Your task to perform on an android device: Open Google Maps and go to "Timeline" Image 0: 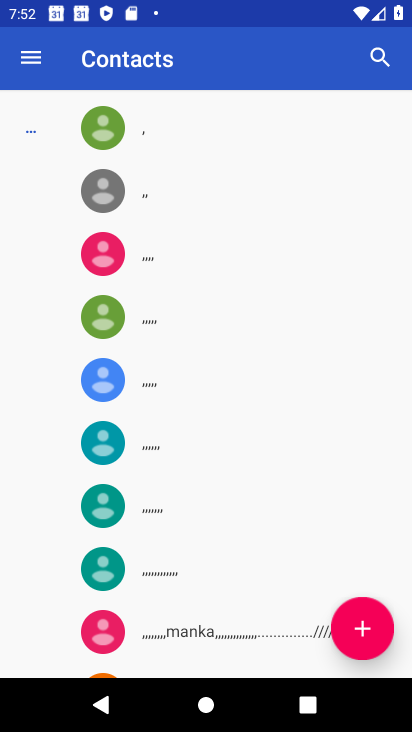
Step 0: press home button
Your task to perform on an android device: Open Google Maps and go to "Timeline" Image 1: 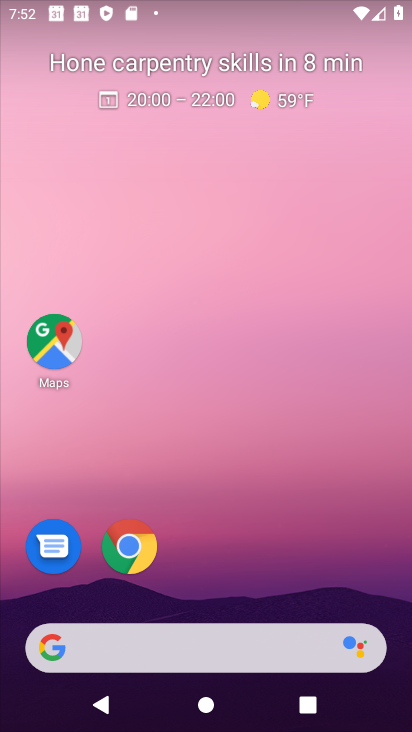
Step 1: click (57, 343)
Your task to perform on an android device: Open Google Maps and go to "Timeline" Image 2: 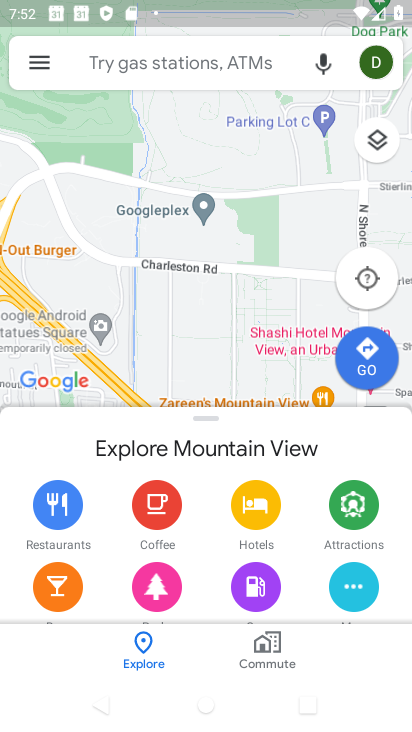
Step 2: click (41, 60)
Your task to perform on an android device: Open Google Maps and go to "Timeline" Image 3: 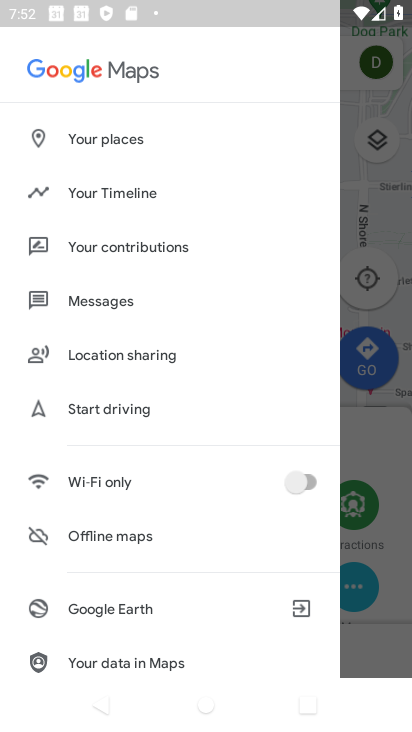
Step 3: click (99, 191)
Your task to perform on an android device: Open Google Maps and go to "Timeline" Image 4: 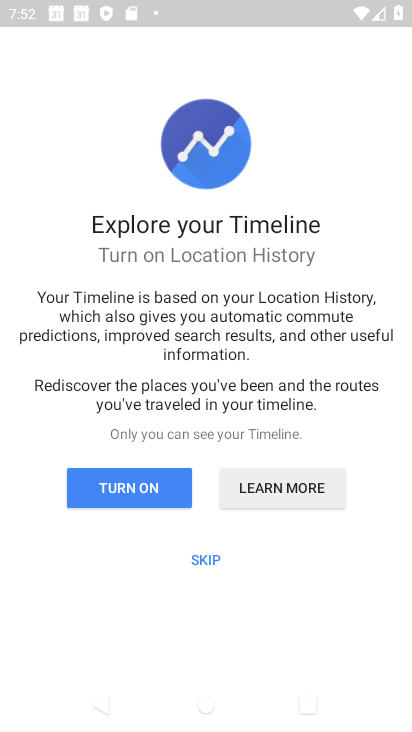
Step 4: click (207, 562)
Your task to perform on an android device: Open Google Maps and go to "Timeline" Image 5: 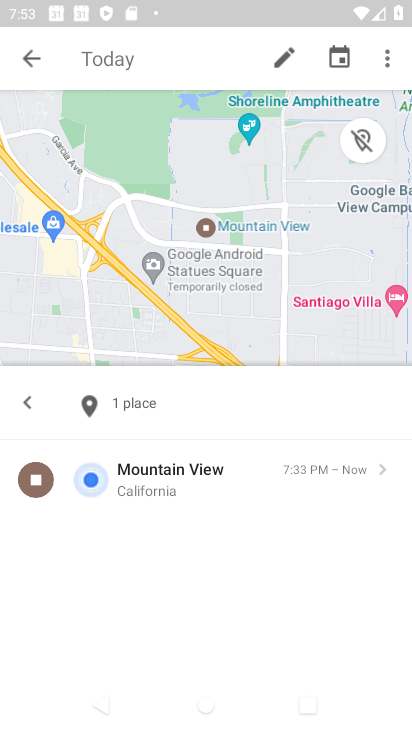
Step 5: task complete